Your task to perform on an android device: snooze an email in the gmail app Image 0: 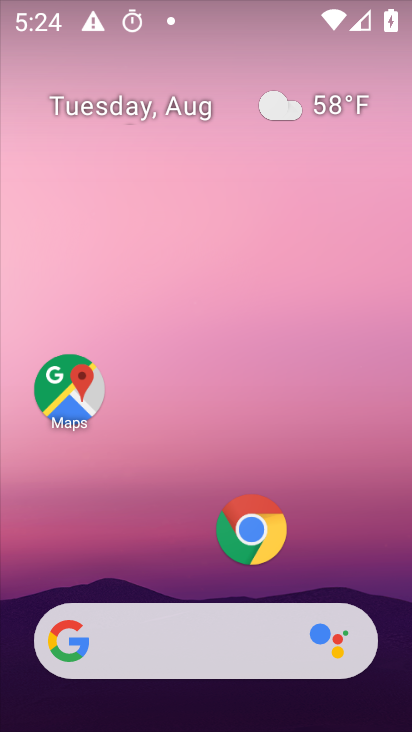
Step 0: drag from (193, 553) to (234, 157)
Your task to perform on an android device: snooze an email in the gmail app Image 1: 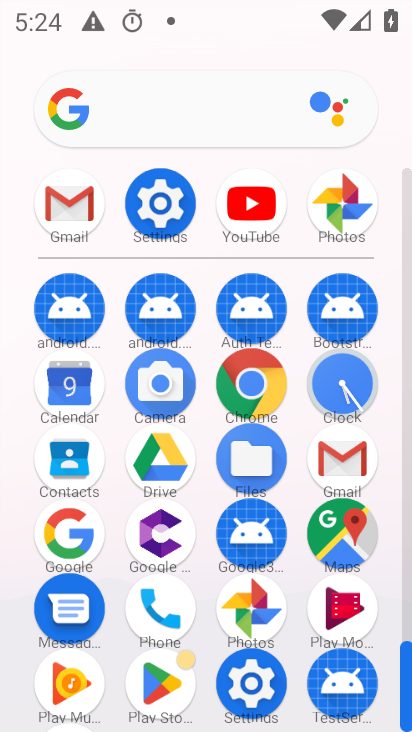
Step 1: click (332, 453)
Your task to perform on an android device: snooze an email in the gmail app Image 2: 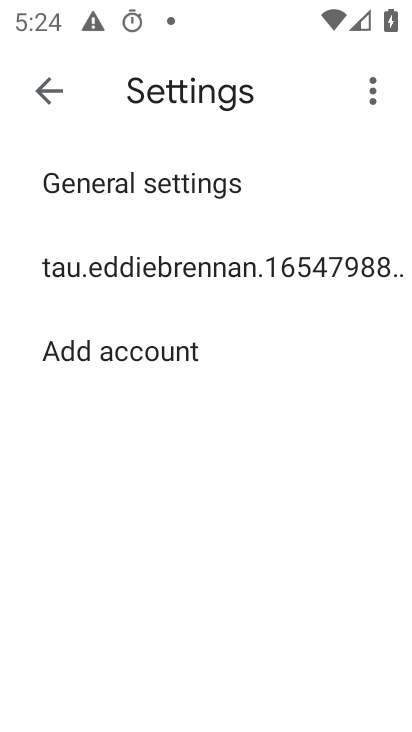
Step 2: click (38, 96)
Your task to perform on an android device: snooze an email in the gmail app Image 3: 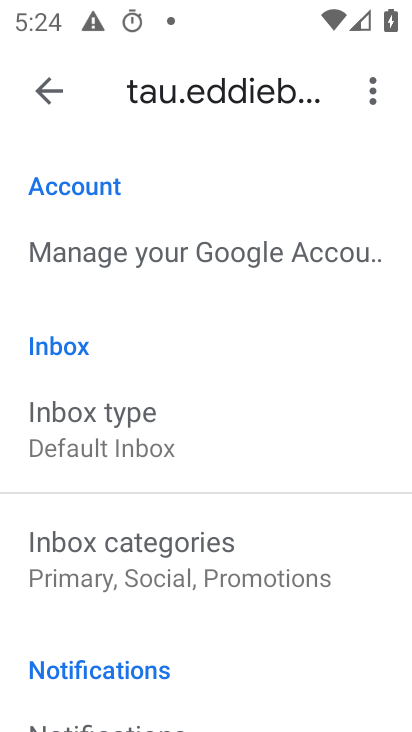
Step 3: click (53, 81)
Your task to perform on an android device: snooze an email in the gmail app Image 4: 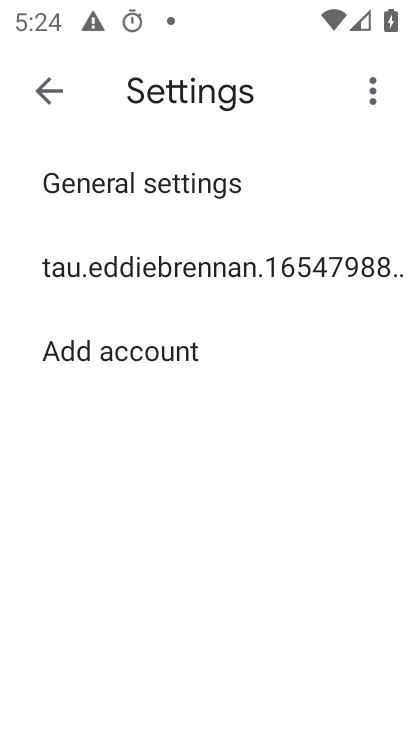
Step 4: click (53, 81)
Your task to perform on an android device: snooze an email in the gmail app Image 5: 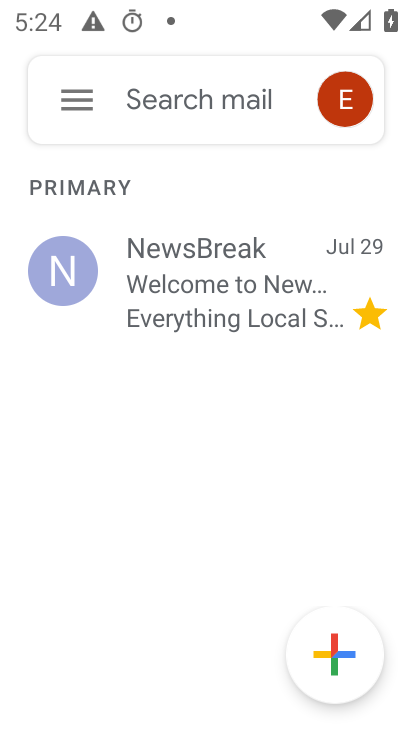
Step 5: click (74, 110)
Your task to perform on an android device: snooze an email in the gmail app Image 6: 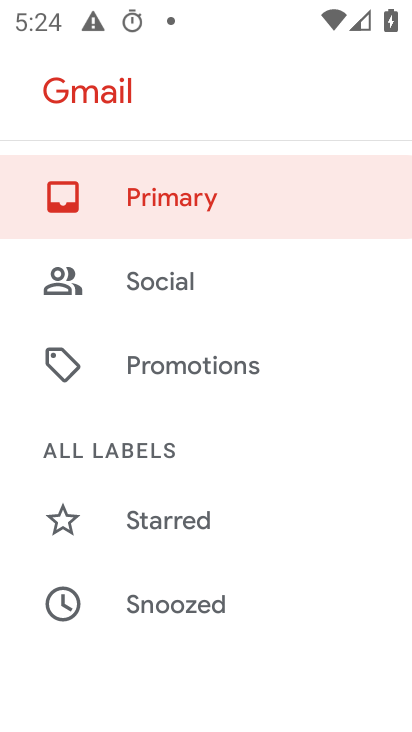
Step 6: drag from (201, 557) to (207, 202)
Your task to perform on an android device: snooze an email in the gmail app Image 7: 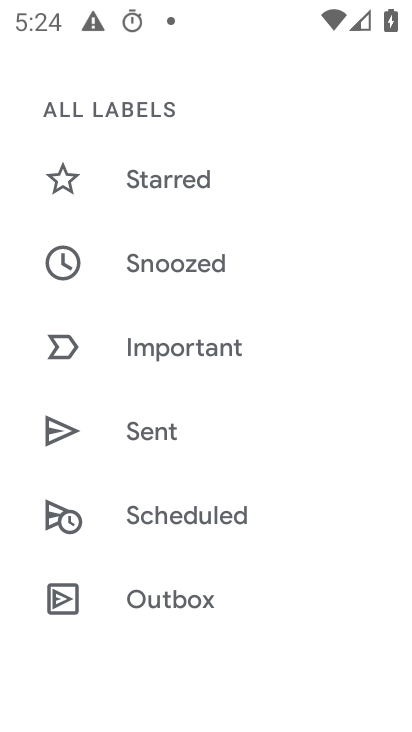
Step 7: drag from (208, 551) to (215, 195)
Your task to perform on an android device: snooze an email in the gmail app Image 8: 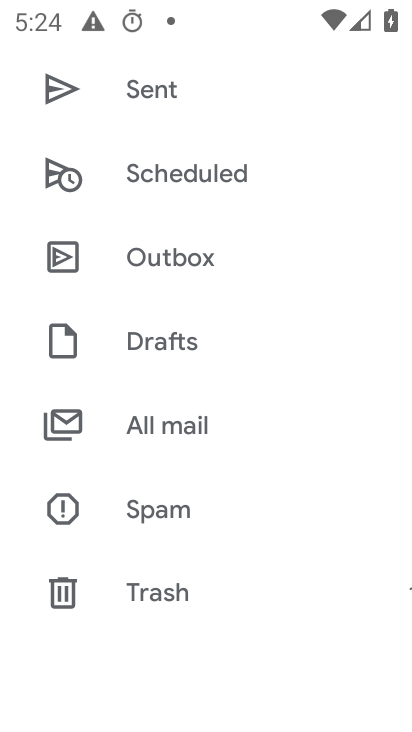
Step 8: click (174, 430)
Your task to perform on an android device: snooze an email in the gmail app Image 9: 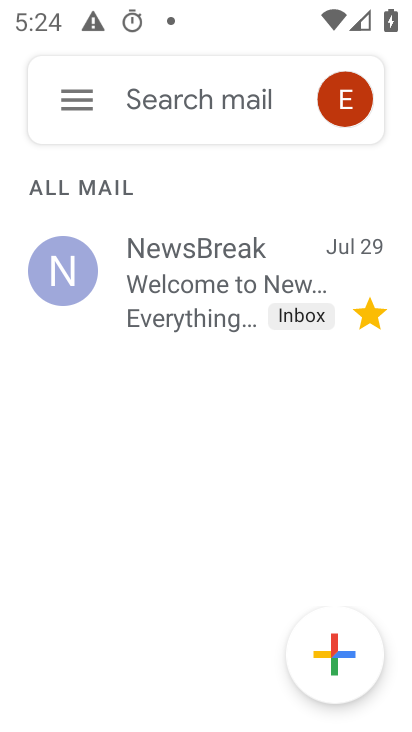
Step 9: click (212, 321)
Your task to perform on an android device: snooze an email in the gmail app Image 10: 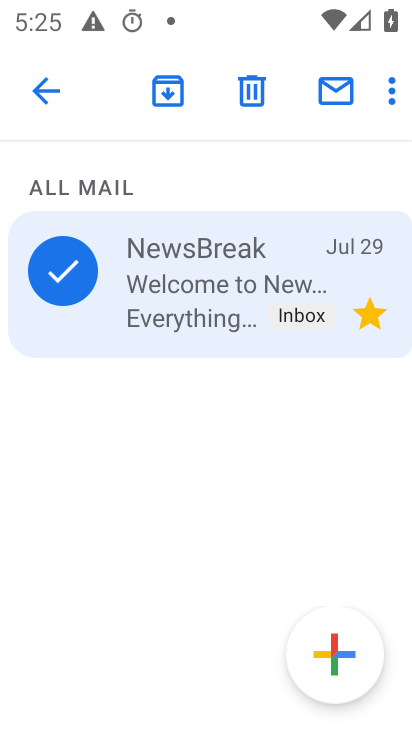
Step 10: click (394, 98)
Your task to perform on an android device: snooze an email in the gmail app Image 11: 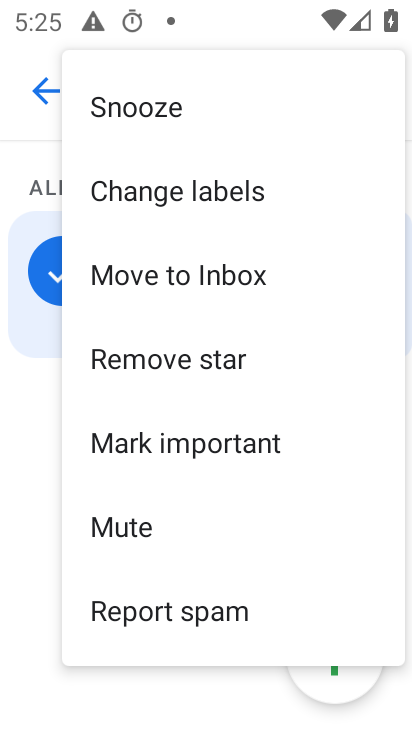
Step 11: click (219, 112)
Your task to perform on an android device: snooze an email in the gmail app Image 12: 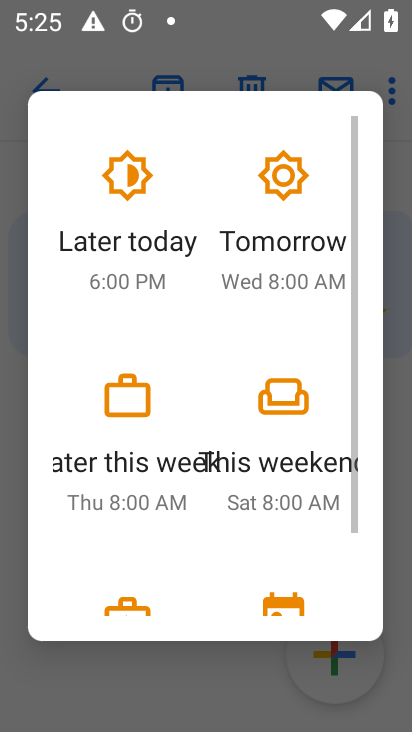
Step 12: click (143, 227)
Your task to perform on an android device: snooze an email in the gmail app Image 13: 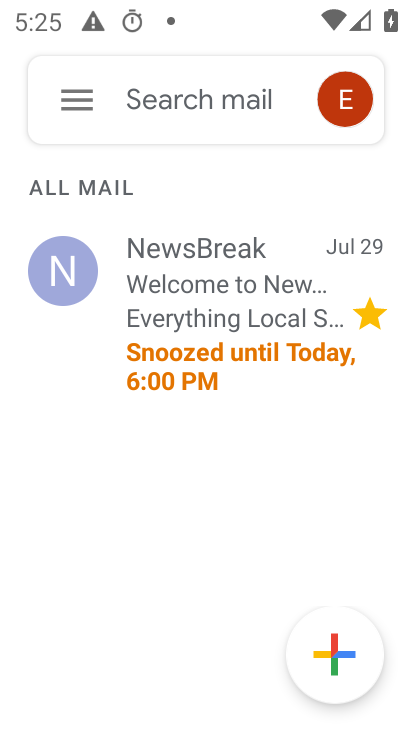
Step 13: task complete